Your task to perform on an android device: Open maps Image 0: 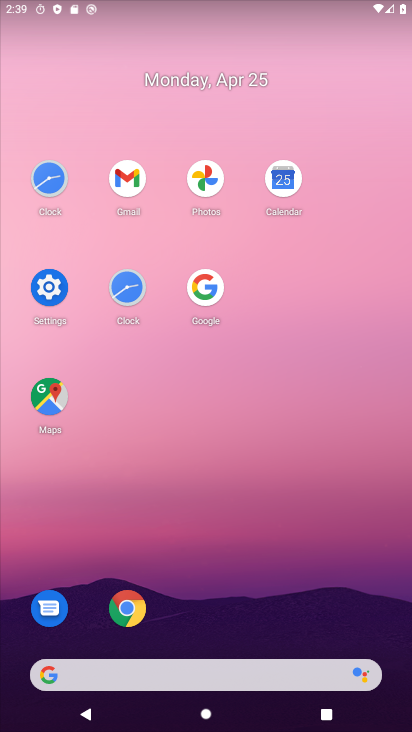
Step 0: click (58, 400)
Your task to perform on an android device: Open maps Image 1: 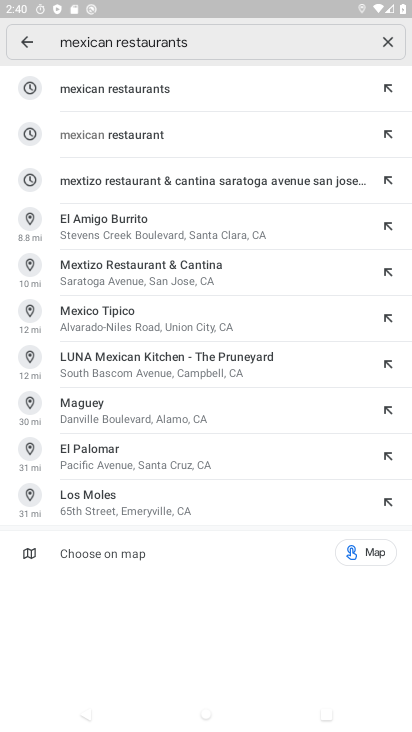
Step 1: task complete